Your task to perform on an android device: Turn on the flashlight Image 0: 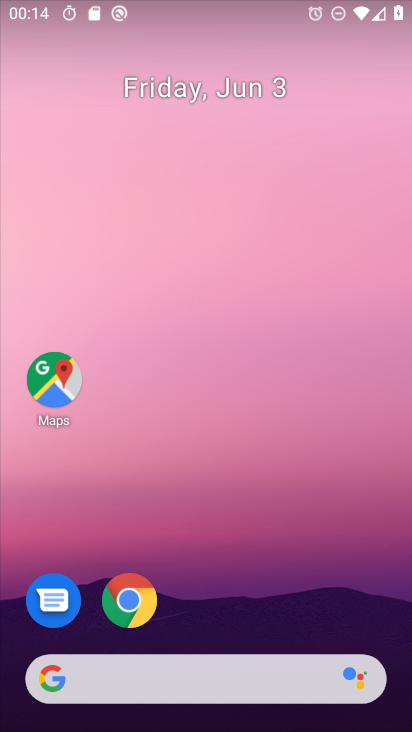
Step 0: drag from (224, 599) to (204, 46)
Your task to perform on an android device: Turn on the flashlight Image 1: 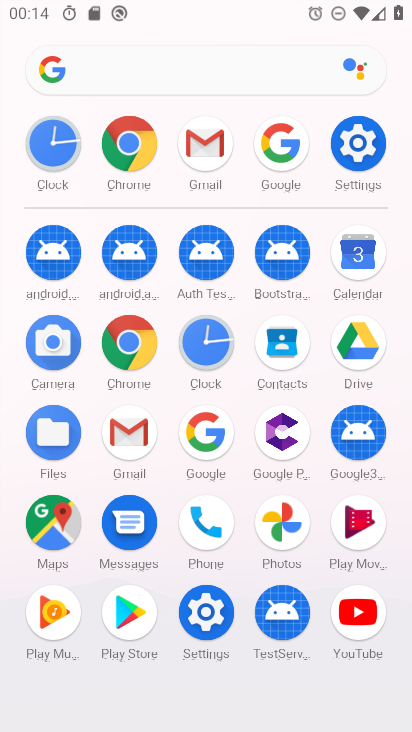
Step 1: click (350, 150)
Your task to perform on an android device: Turn on the flashlight Image 2: 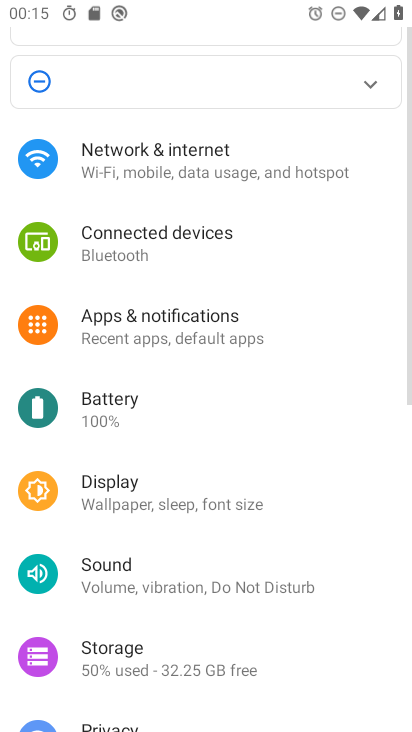
Step 2: drag from (212, 91) to (217, 420)
Your task to perform on an android device: Turn on the flashlight Image 3: 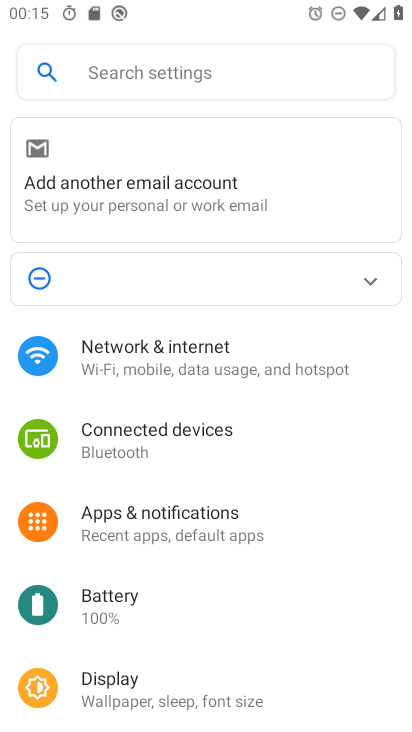
Step 3: click (179, 75)
Your task to perform on an android device: Turn on the flashlight Image 4: 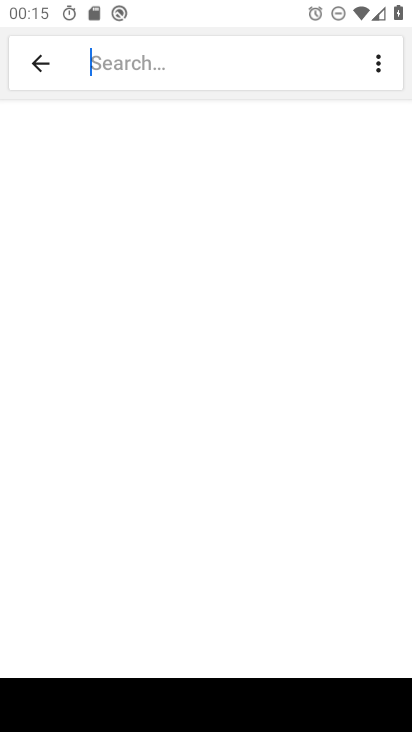
Step 4: type "flash"
Your task to perform on an android device: Turn on the flashlight Image 5: 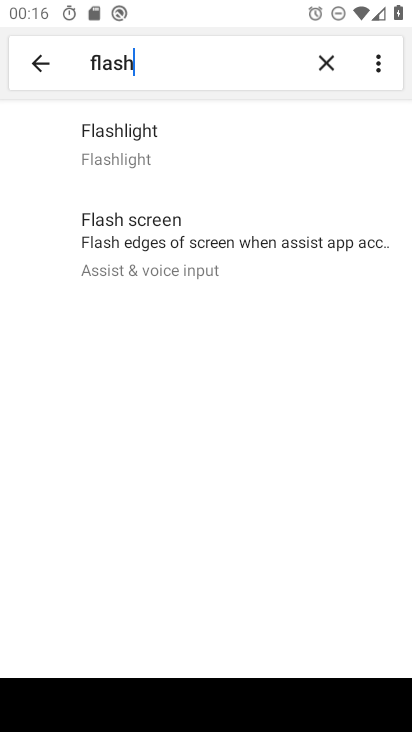
Step 5: task complete